Your task to perform on an android device: turn off improve location accuracy Image 0: 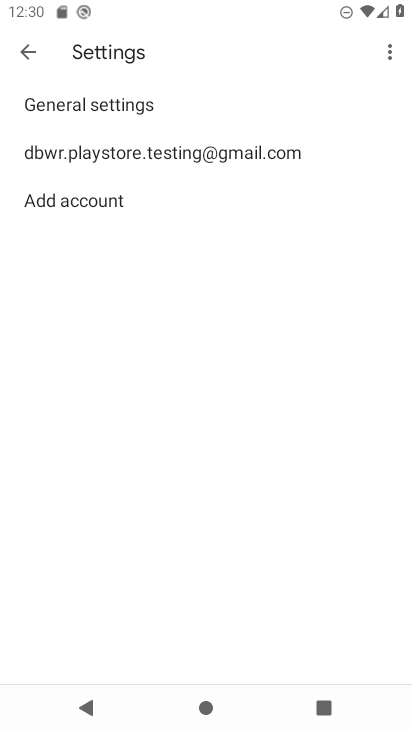
Step 0: task impossible